Your task to perform on an android device: open a bookmark in the chrome app Image 0: 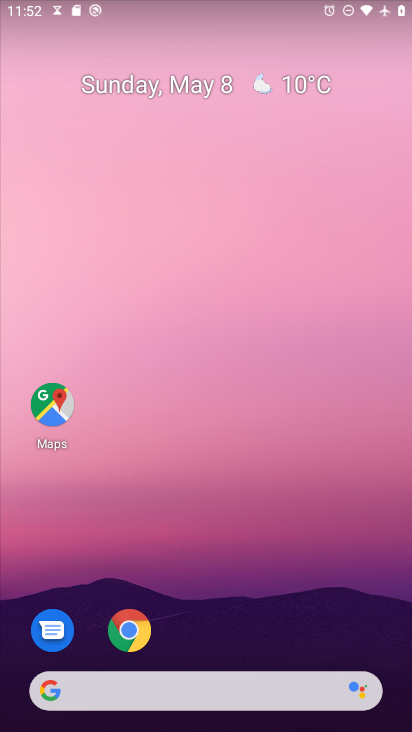
Step 0: drag from (153, 688) to (365, 20)
Your task to perform on an android device: open a bookmark in the chrome app Image 1: 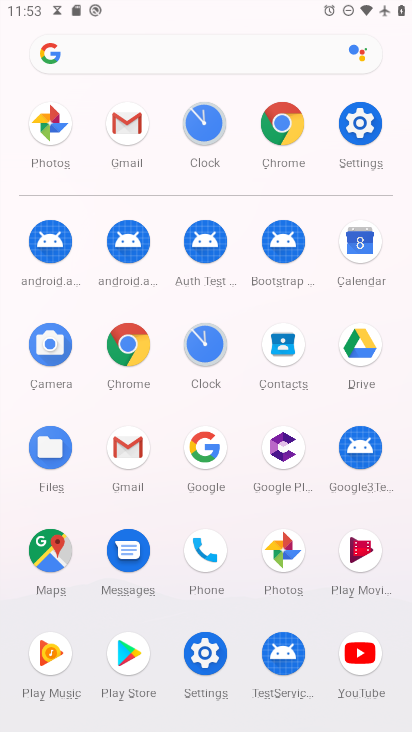
Step 1: click (285, 127)
Your task to perform on an android device: open a bookmark in the chrome app Image 2: 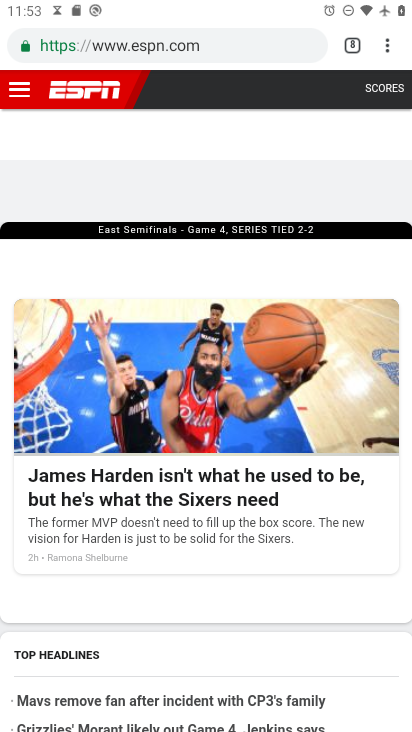
Step 2: task complete